Your task to perform on an android device: check out phone information Image 0: 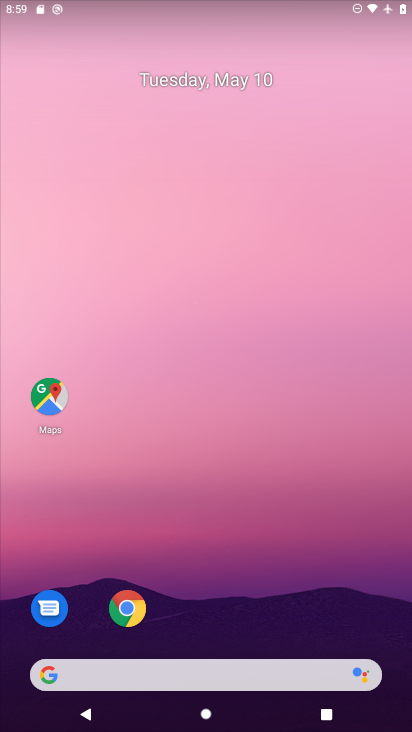
Step 0: drag from (236, 556) to (268, 317)
Your task to perform on an android device: check out phone information Image 1: 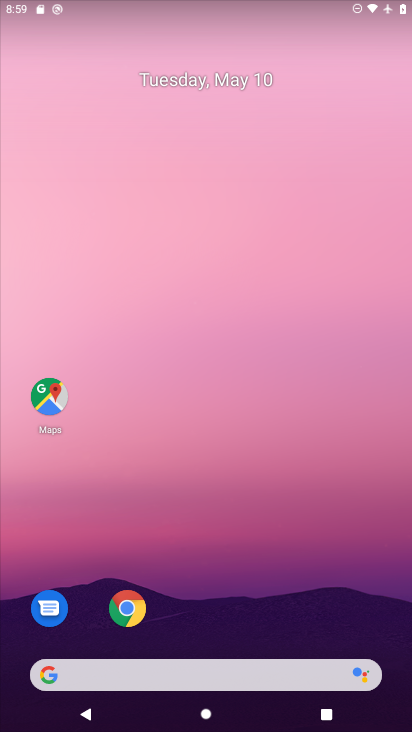
Step 1: drag from (262, 603) to (324, 226)
Your task to perform on an android device: check out phone information Image 2: 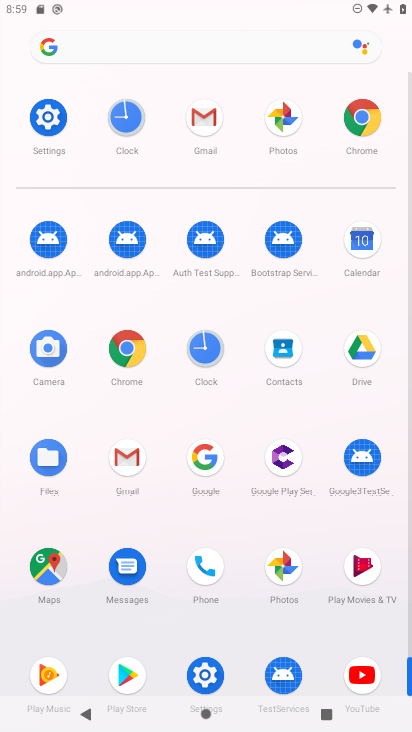
Step 2: click (45, 113)
Your task to perform on an android device: check out phone information Image 3: 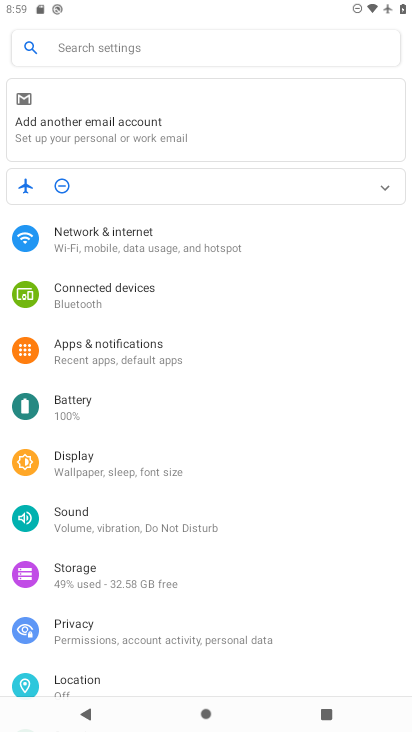
Step 3: drag from (190, 651) to (269, 125)
Your task to perform on an android device: check out phone information Image 4: 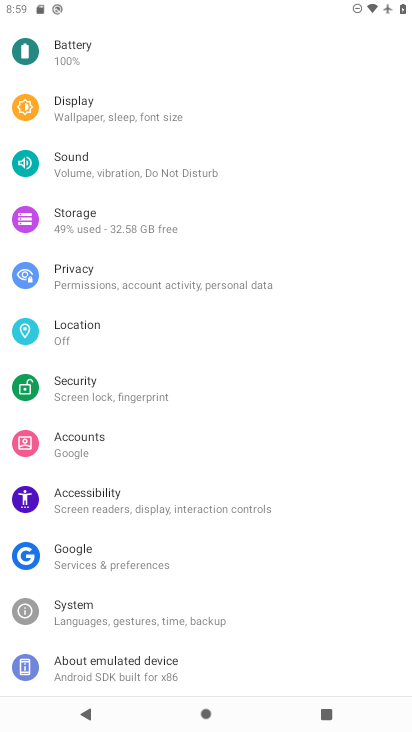
Step 4: click (173, 666)
Your task to perform on an android device: check out phone information Image 5: 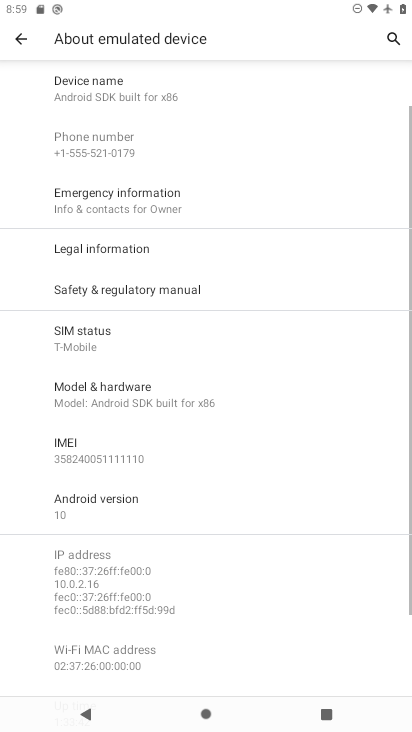
Step 5: task complete